Your task to perform on an android device: Open Amazon Image 0: 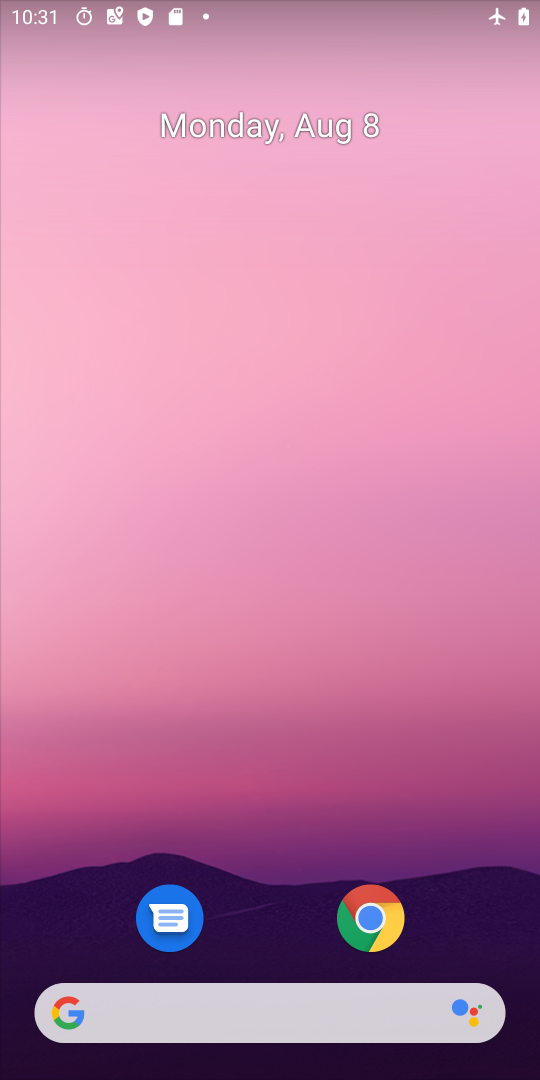
Step 0: click (350, 924)
Your task to perform on an android device: Open Amazon Image 1: 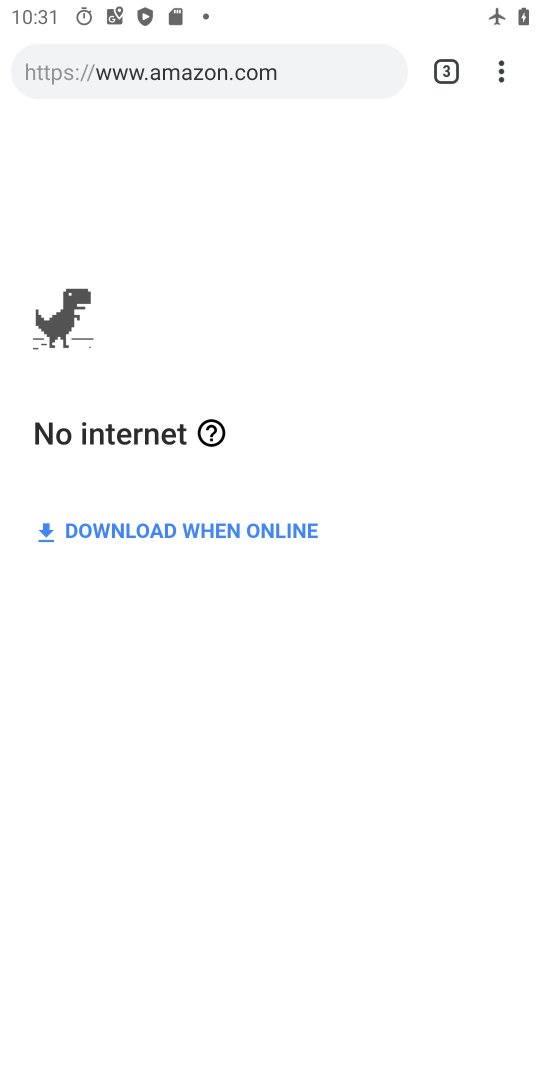
Step 1: task complete